Your task to perform on an android device: Open Maps and search for coffee Image 0: 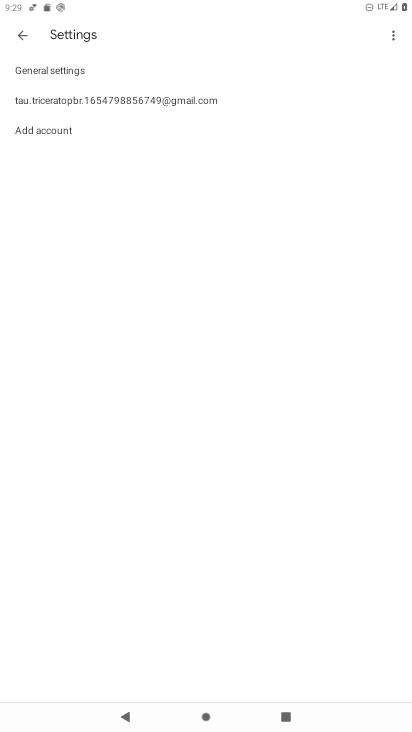
Step 0: press home button
Your task to perform on an android device: Open Maps and search for coffee Image 1: 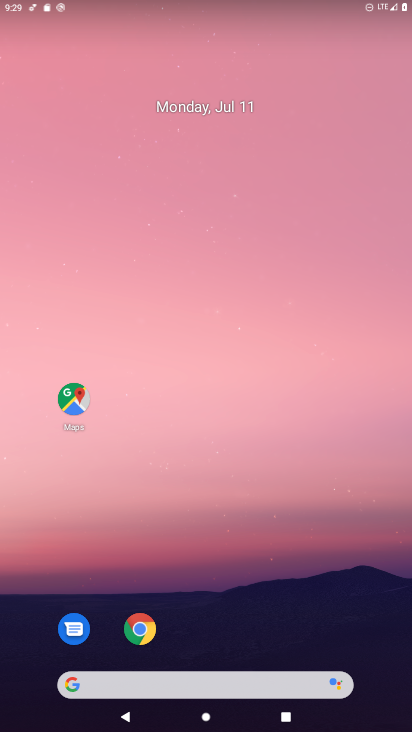
Step 1: click (74, 410)
Your task to perform on an android device: Open Maps and search for coffee Image 2: 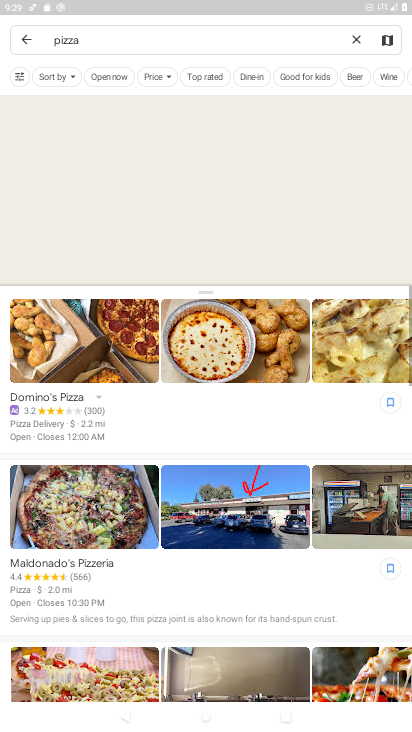
Step 2: click (363, 38)
Your task to perform on an android device: Open Maps and search for coffee Image 3: 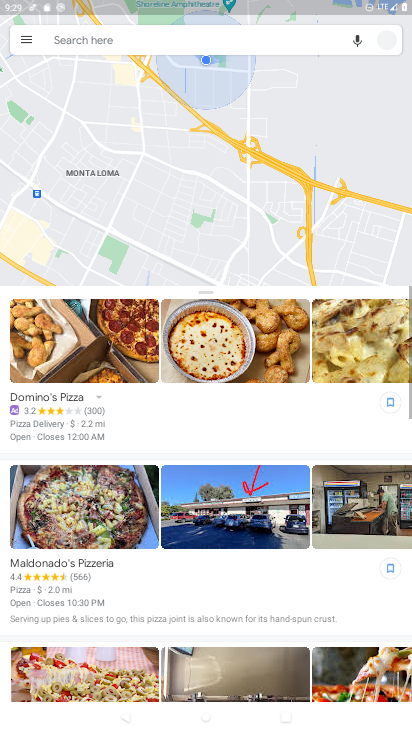
Step 3: click (216, 45)
Your task to perform on an android device: Open Maps and search for coffee Image 4: 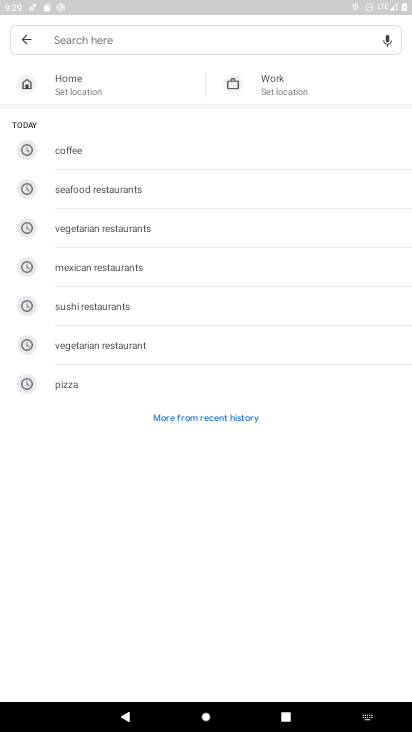
Step 4: click (123, 153)
Your task to perform on an android device: Open Maps and search for coffee Image 5: 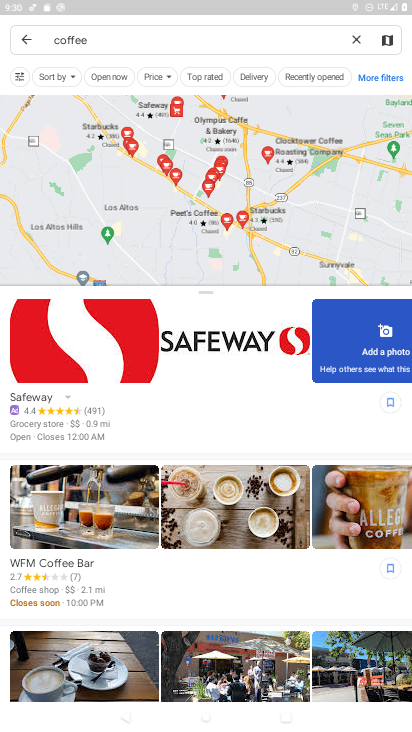
Step 5: task complete